Your task to perform on an android device: Search for Mexican restaurants on Maps Image 0: 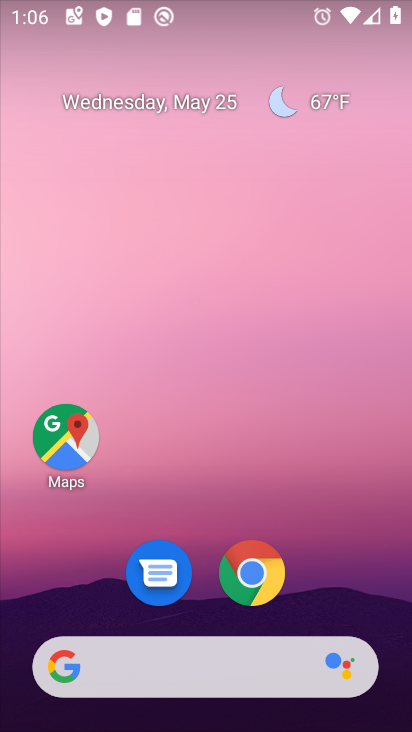
Step 0: click (57, 439)
Your task to perform on an android device: Search for Mexican restaurants on Maps Image 1: 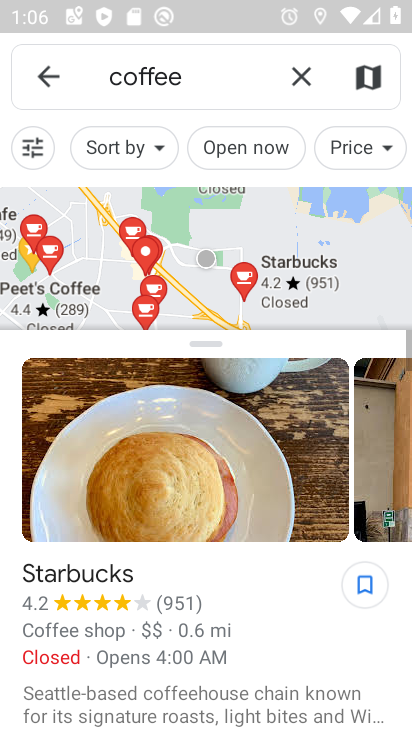
Step 1: click (287, 82)
Your task to perform on an android device: Search for Mexican restaurants on Maps Image 2: 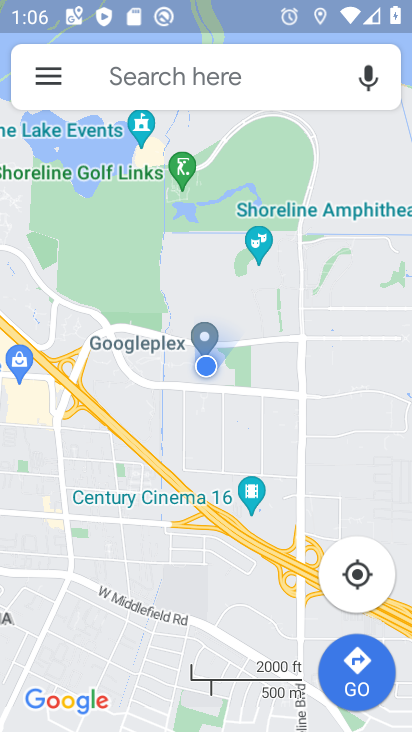
Step 2: click (213, 95)
Your task to perform on an android device: Search for Mexican restaurants on Maps Image 3: 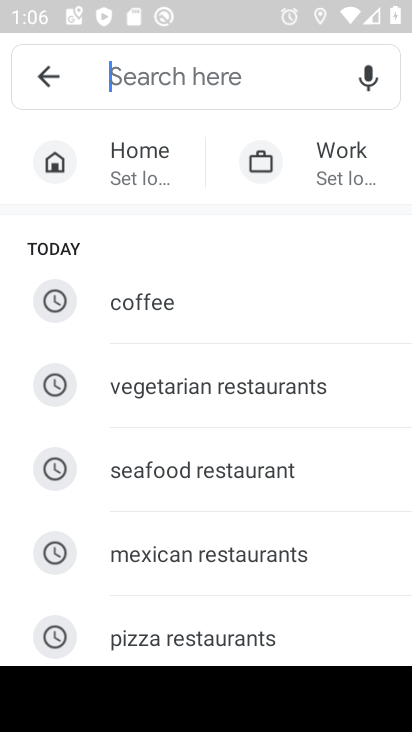
Step 3: type "Mexican restaurants"
Your task to perform on an android device: Search for Mexican restaurants on Maps Image 4: 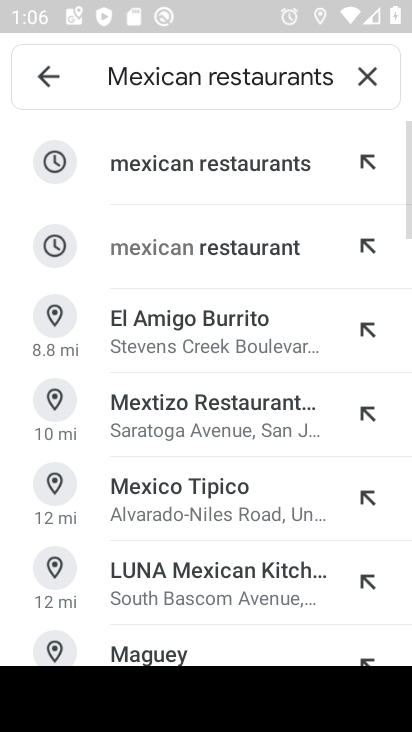
Step 4: click (238, 156)
Your task to perform on an android device: Search for Mexican restaurants on Maps Image 5: 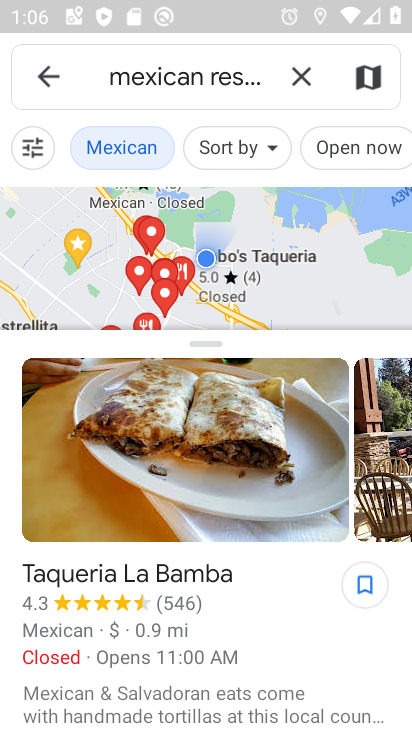
Step 5: task complete